Your task to perform on an android device: toggle translation in the chrome app Image 0: 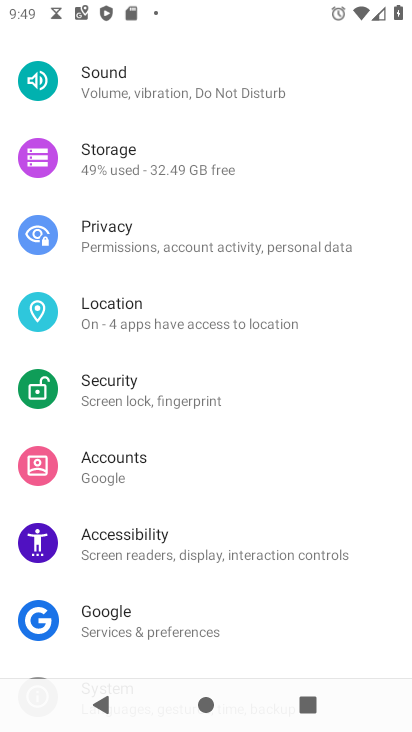
Step 0: press home button
Your task to perform on an android device: toggle translation in the chrome app Image 1: 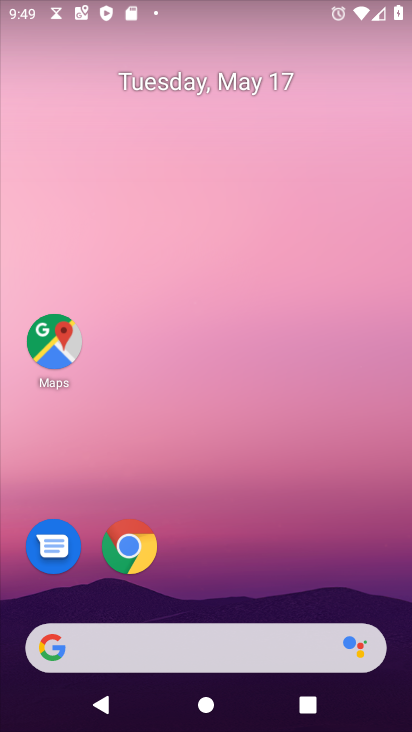
Step 1: click (125, 552)
Your task to perform on an android device: toggle translation in the chrome app Image 2: 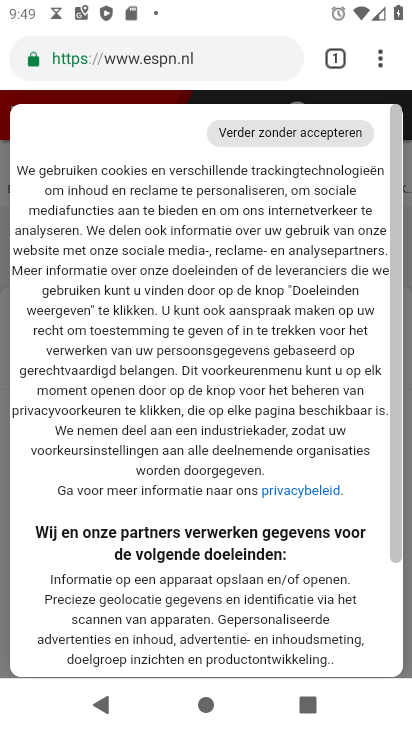
Step 2: click (378, 56)
Your task to perform on an android device: toggle translation in the chrome app Image 3: 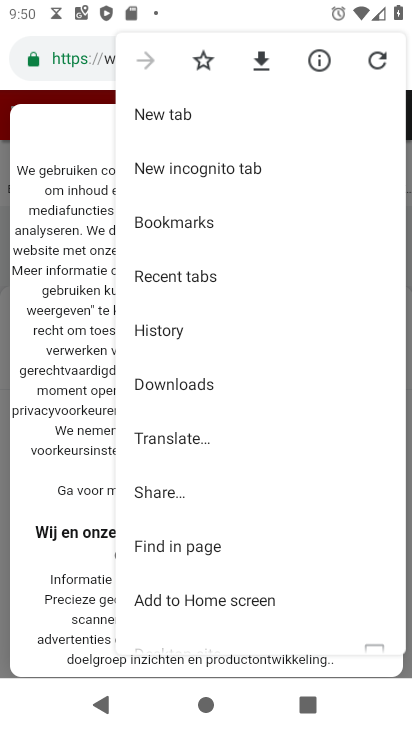
Step 3: drag from (244, 612) to (296, 266)
Your task to perform on an android device: toggle translation in the chrome app Image 4: 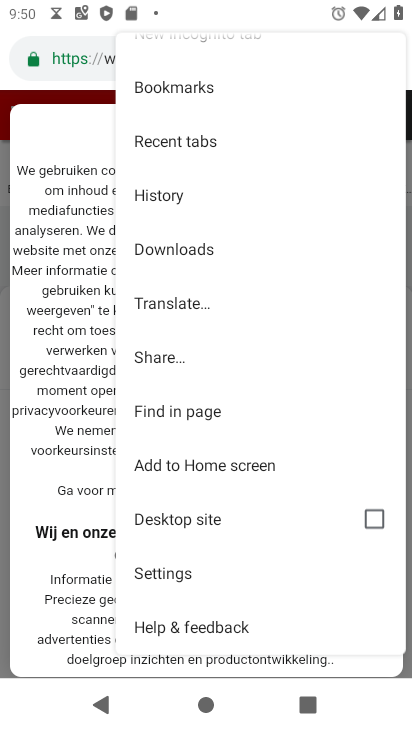
Step 4: click (195, 581)
Your task to perform on an android device: toggle translation in the chrome app Image 5: 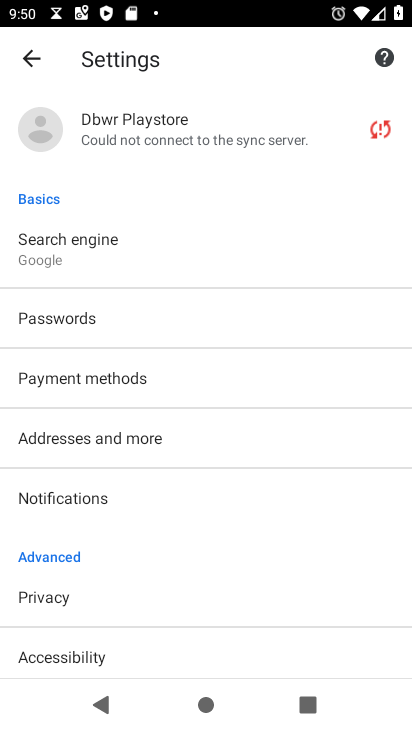
Step 5: drag from (163, 623) to (237, 347)
Your task to perform on an android device: toggle translation in the chrome app Image 6: 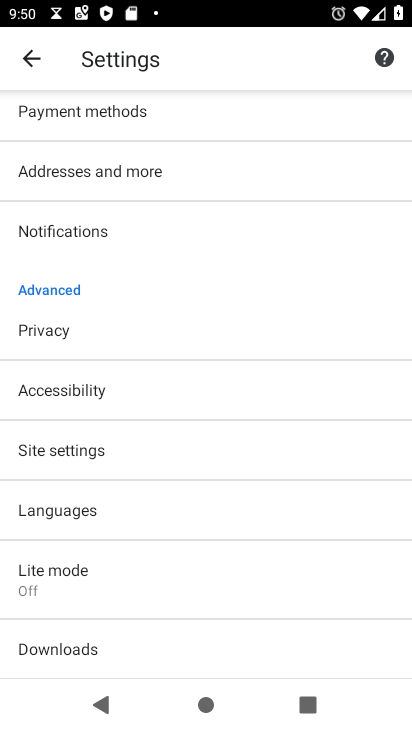
Step 6: click (136, 504)
Your task to perform on an android device: toggle translation in the chrome app Image 7: 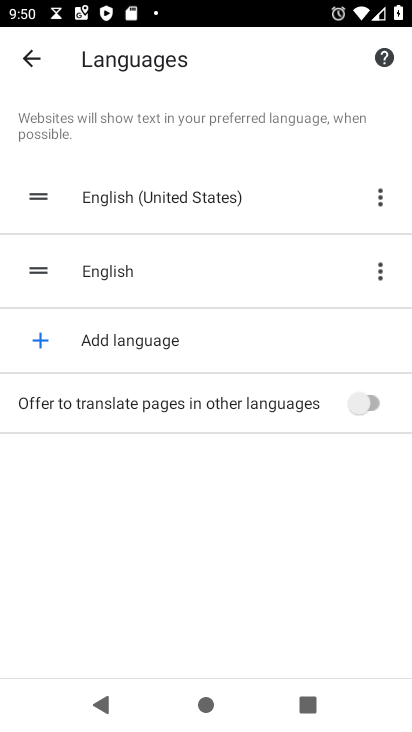
Step 7: click (355, 397)
Your task to perform on an android device: toggle translation in the chrome app Image 8: 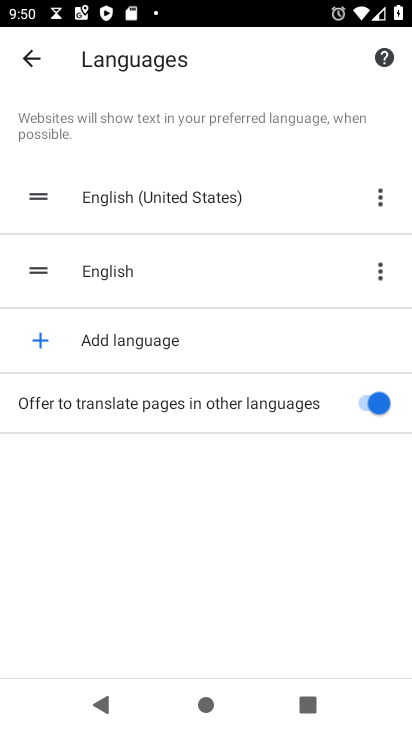
Step 8: task complete